Your task to perform on an android device: Go to Yahoo.com Image 0: 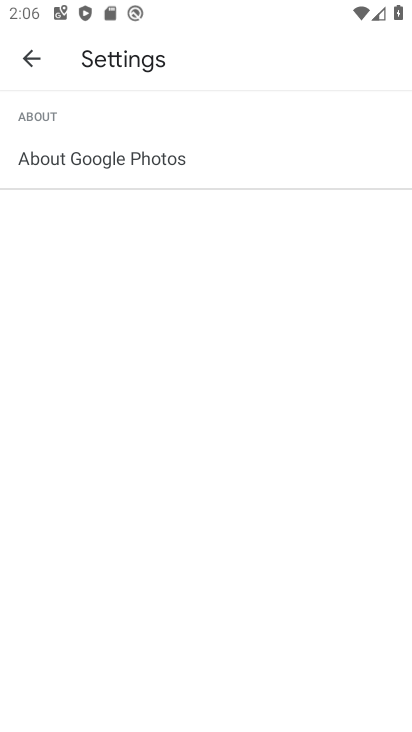
Step 0: press home button
Your task to perform on an android device: Go to Yahoo.com Image 1: 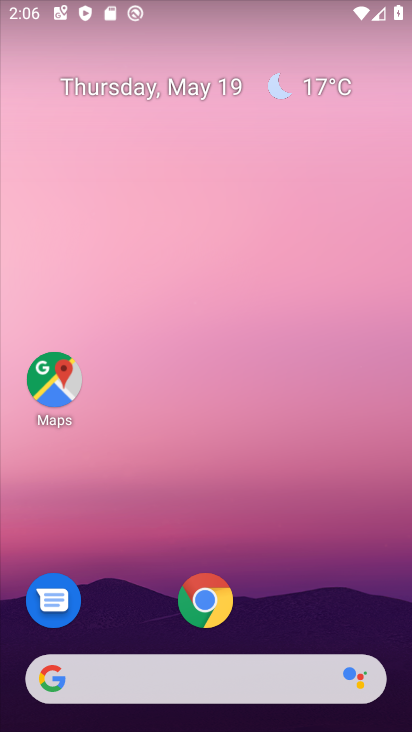
Step 1: click (206, 611)
Your task to perform on an android device: Go to Yahoo.com Image 2: 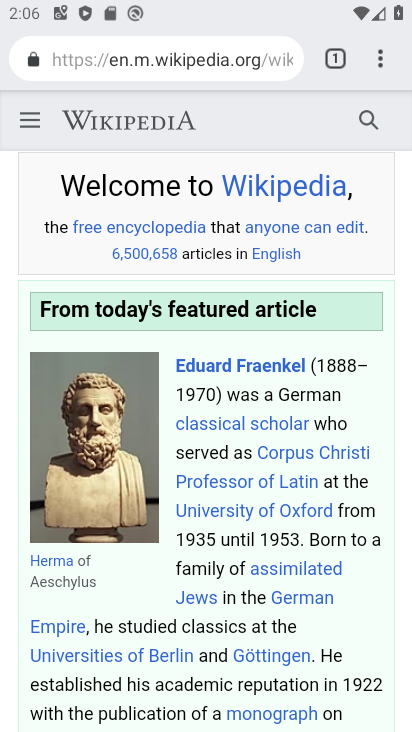
Step 2: click (343, 56)
Your task to perform on an android device: Go to Yahoo.com Image 3: 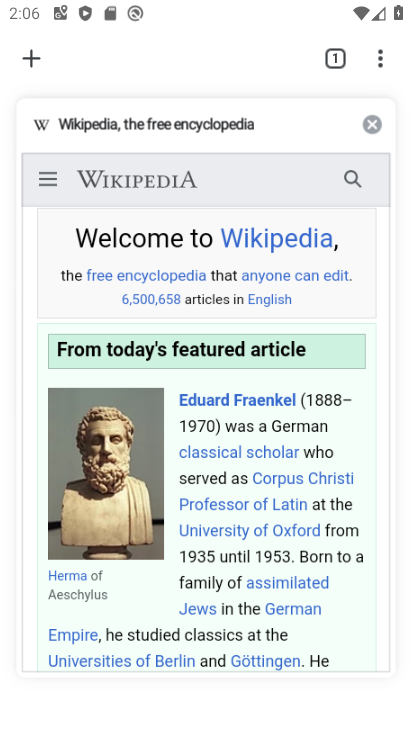
Step 3: click (370, 130)
Your task to perform on an android device: Go to Yahoo.com Image 4: 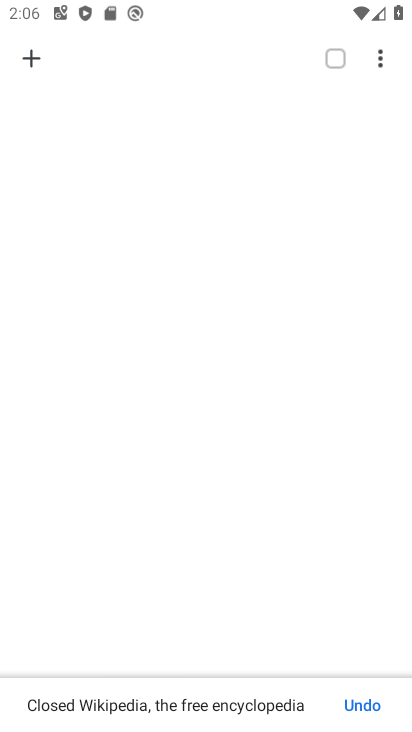
Step 4: click (36, 61)
Your task to perform on an android device: Go to Yahoo.com Image 5: 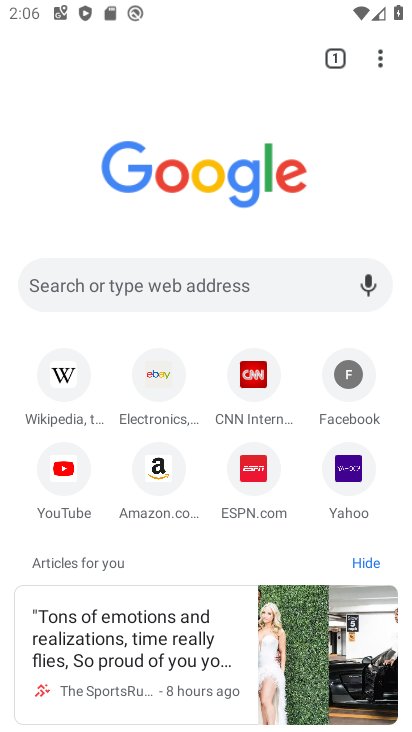
Step 5: click (333, 465)
Your task to perform on an android device: Go to Yahoo.com Image 6: 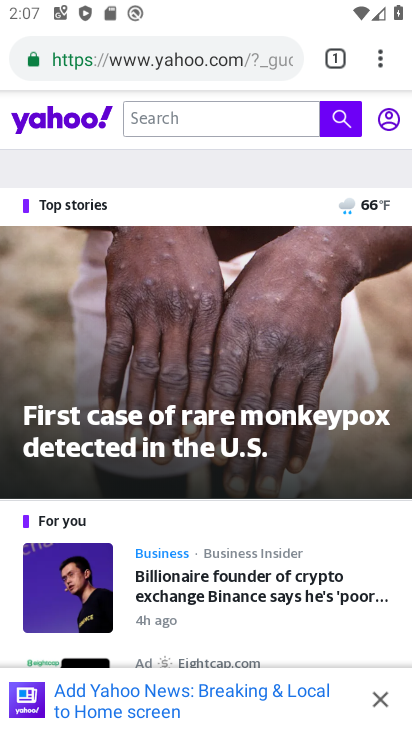
Step 6: task complete